Your task to perform on an android device: turn off data saver in the chrome app Image 0: 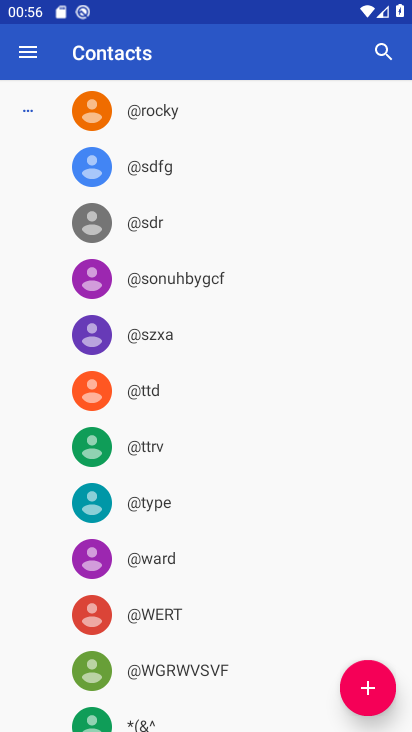
Step 0: press home button
Your task to perform on an android device: turn off data saver in the chrome app Image 1: 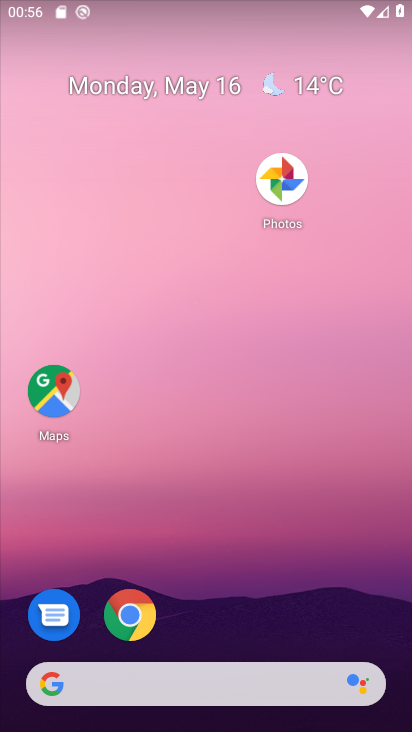
Step 1: drag from (386, 550) to (388, 107)
Your task to perform on an android device: turn off data saver in the chrome app Image 2: 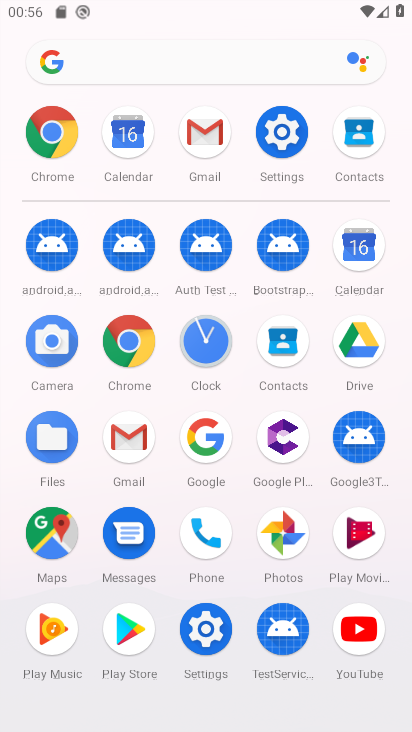
Step 2: click (148, 342)
Your task to perform on an android device: turn off data saver in the chrome app Image 3: 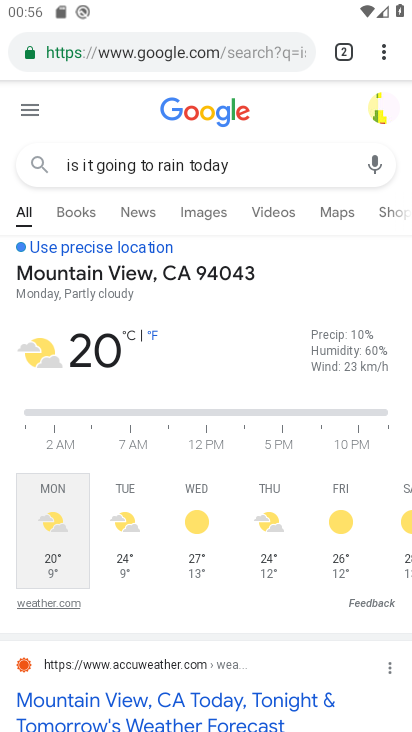
Step 3: drag from (387, 60) to (224, 641)
Your task to perform on an android device: turn off data saver in the chrome app Image 4: 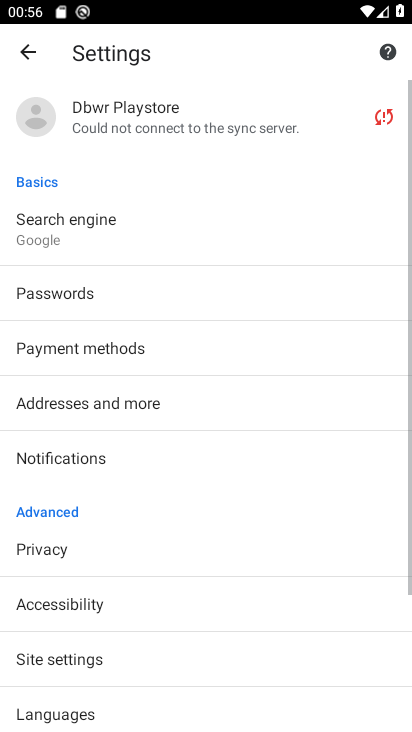
Step 4: drag from (239, 677) to (280, 268)
Your task to perform on an android device: turn off data saver in the chrome app Image 5: 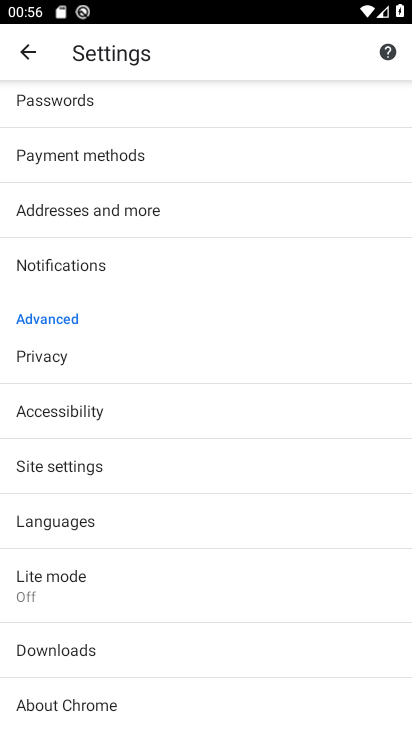
Step 5: click (135, 511)
Your task to perform on an android device: turn off data saver in the chrome app Image 6: 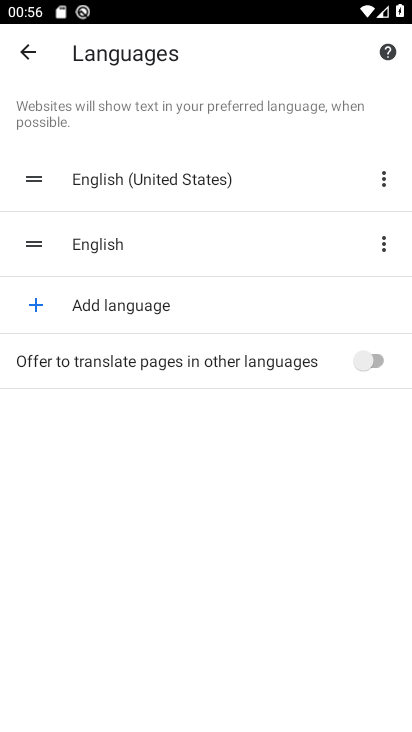
Step 6: click (10, 49)
Your task to perform on an android device: turn off data saver in the chrome app Image 7: 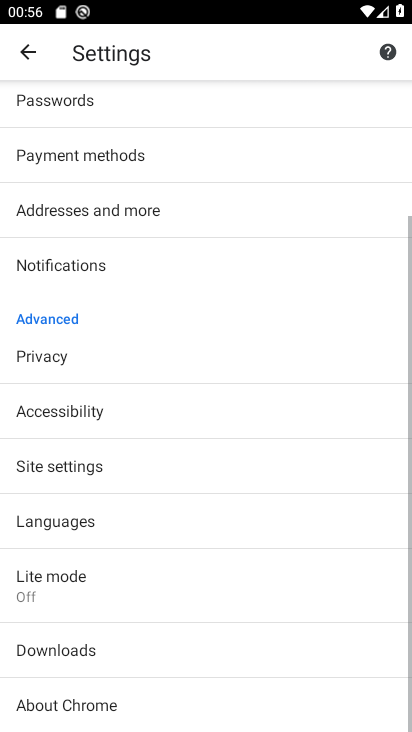
Step 7: click (110, 581)
Your task to perform on an android device: turn off data saver in the chrome app Image 8: 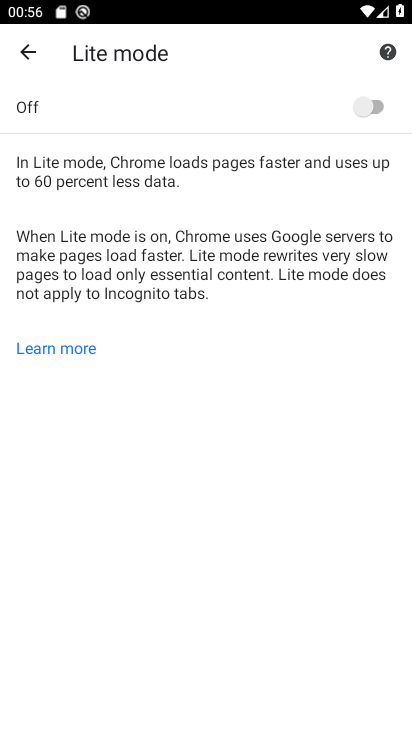
Step 8: task complete